Your task to perform on an android device: Do I have any events today? Image 0: 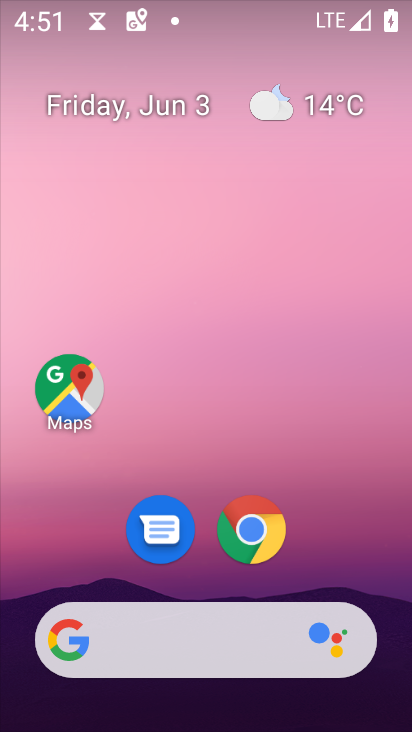
Step 0: click (98, 112)
Your task to perform on an android device: Do I have any events today? Image 1: 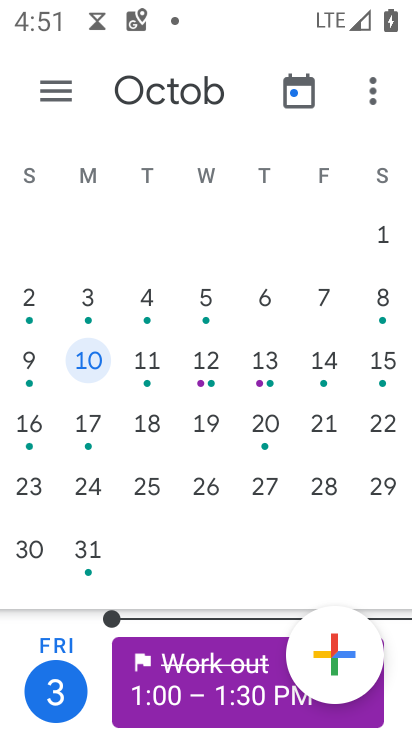
Step 1: task complete